Your task to perform on an android device: Open Maps and search for coffee Image 0: 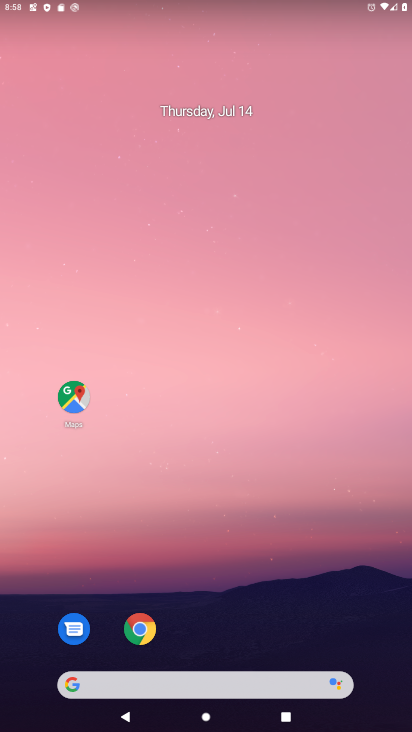
Step 0: click (69, 402)
Your task to perform on an android device: Open Maps and search for coffee Image 1: 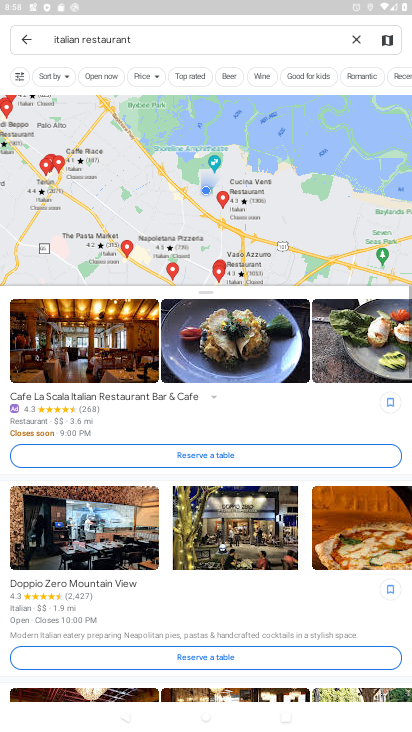
Step 1: click (354, 39)
Your task to perform on an android device: Open Maps and search for coffee Image 2: 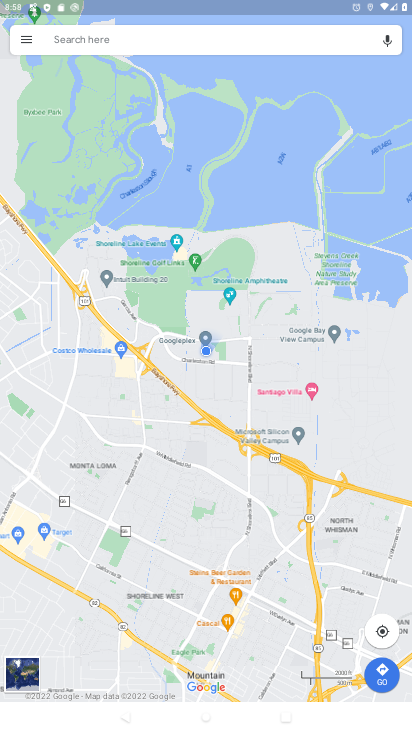
Step 2: click (182, 39)
Your task to perform on an android device: Open Maps and search for coffee Image 3: 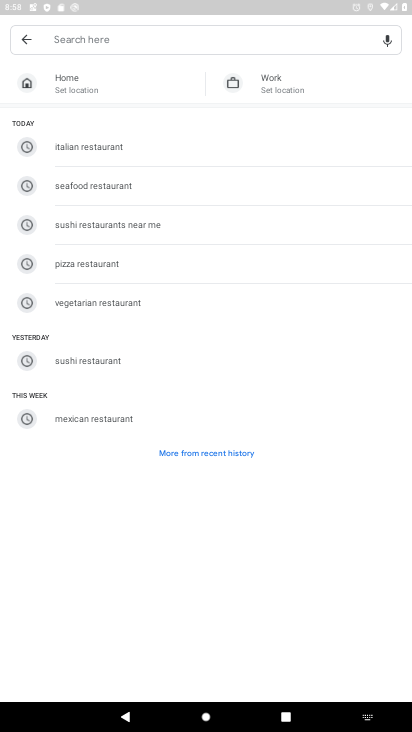
Step 3: type "coffee"
Your task to perform on an android device: Open Maps and search for coffee Image 4: 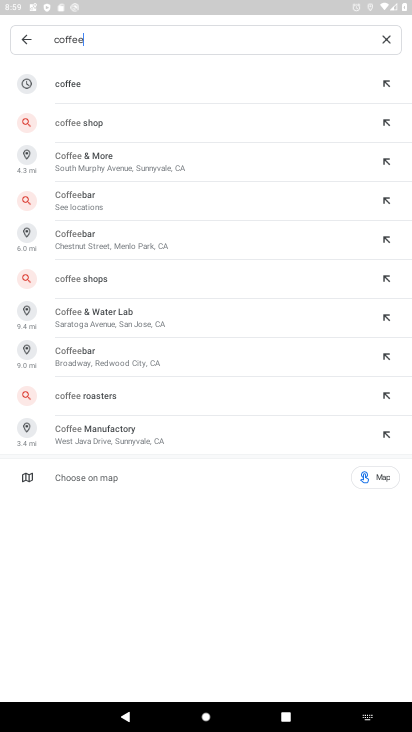
Step 4: click (98, 85)
Your task to perform on an android device: Open Maps and search for coffee Image 5: 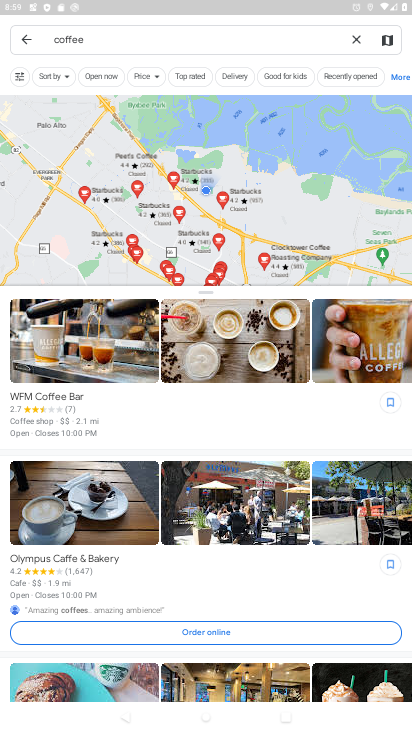
Step 5: task complete